Your task to perform on an android device: turn off notifications in google photos Image 0: 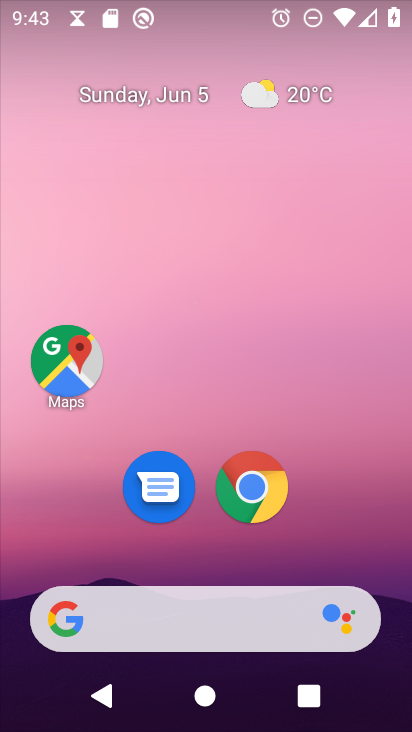
Step 0: drag from (283, 476) to (282, 198)
Your task to perform on an android device: turn off notifications in google photos Image 1: 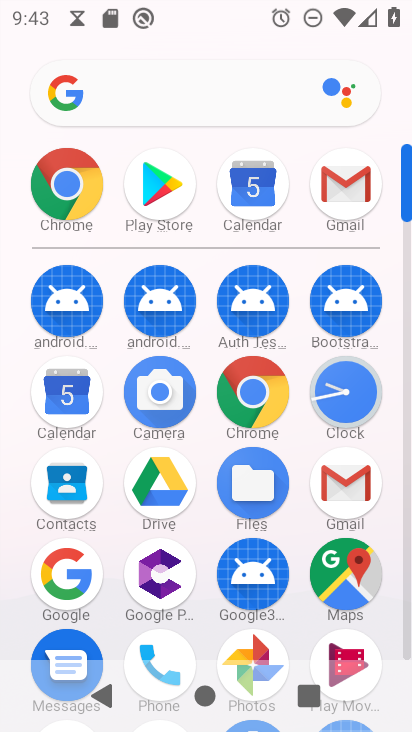
Step 1: click (231, 641)
Your task to perform on an android device: turn off notifications in google photos Image 2: 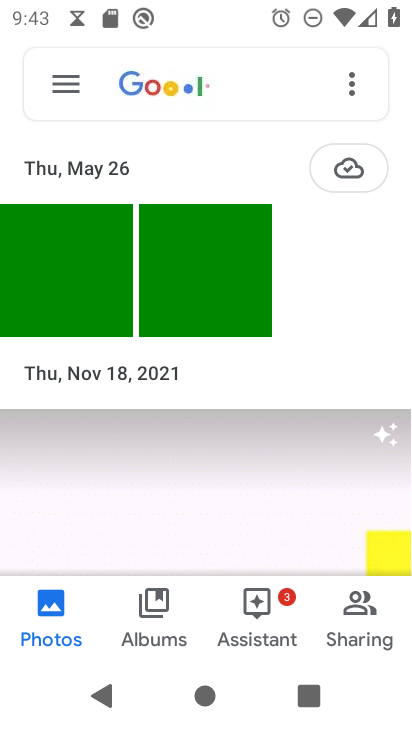
Step 2: click (65, 67)
Your task to perform on an android device: turn off notifications in google photos Image 3: 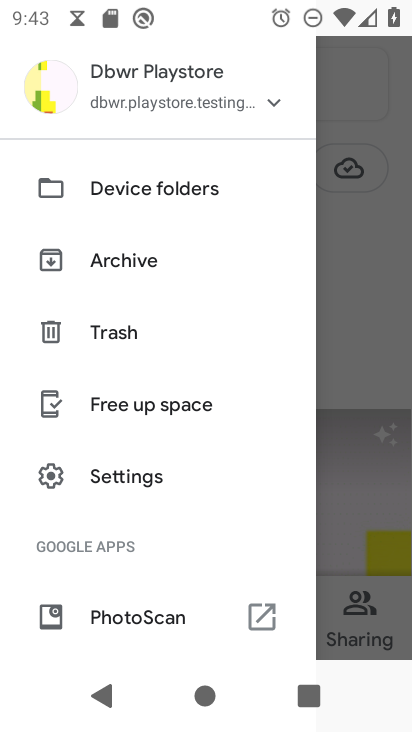
Step 3: click (150, 480)
Your task to perform on an android device: turn off notifications in google photos Image 4: 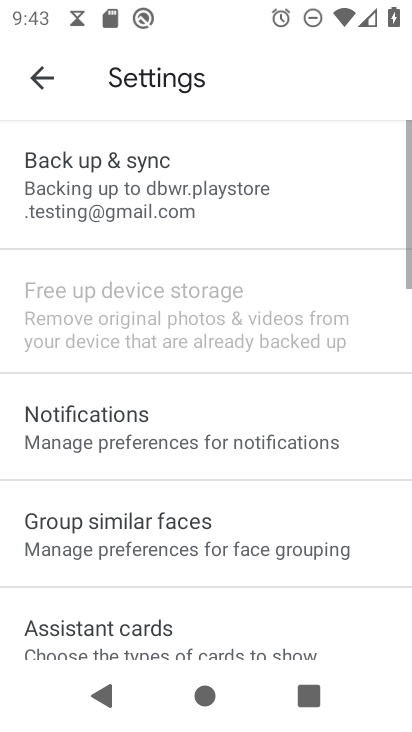
Step 4: click (137, 432)
Your task to perform on an android device: turn off notifications in google photos Image 5: 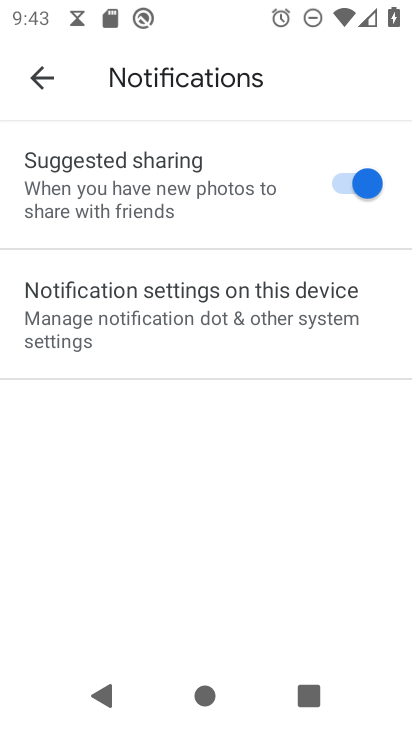
Step 5: click (154, 335)
Your task to perform on an android device: turn off notifications in google photos Image 6: 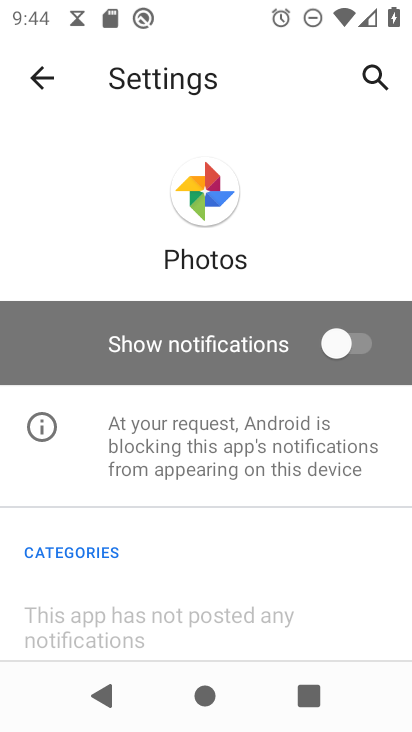
Step 6: task complete